Your task to perform on an android device: Open Youtube and go to "Your channel" Image 0: 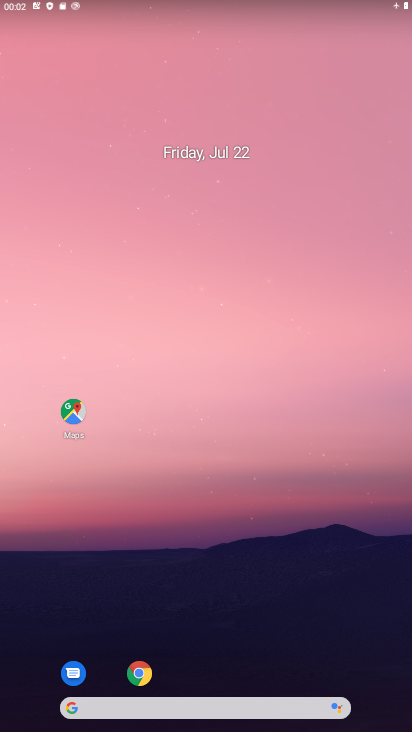
Step 0: drag from (187, 659) to (187, 155)
Your task to perform on an android device: Open Youtube and go to "Your channel" Image 1: 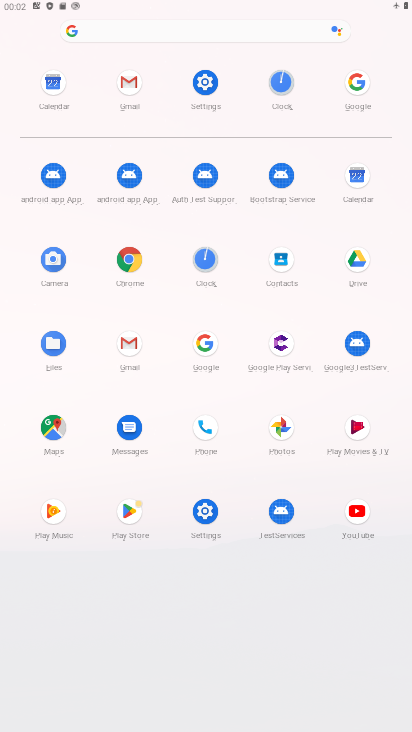
Step 1: click (367, 510)
Your task to perform on an android device: Open Youtube and go to "Your channel" Image 2: 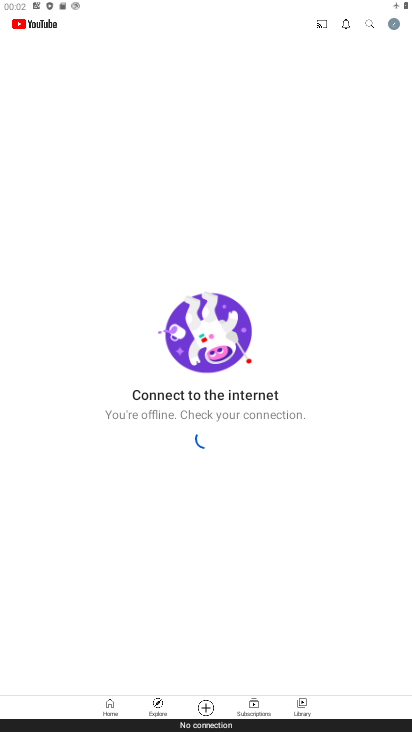
Step 2: click (393, 28)
Your task to perform on an android device: Open Youtube and go to "Your channel" Image 3: 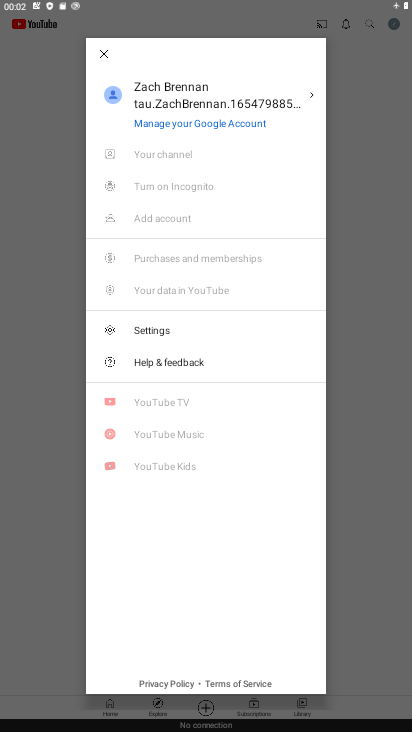
Step 3: click (384, 58)
Your task to perform on an android device: Open Youtube and go to "Your channel" Image 4: 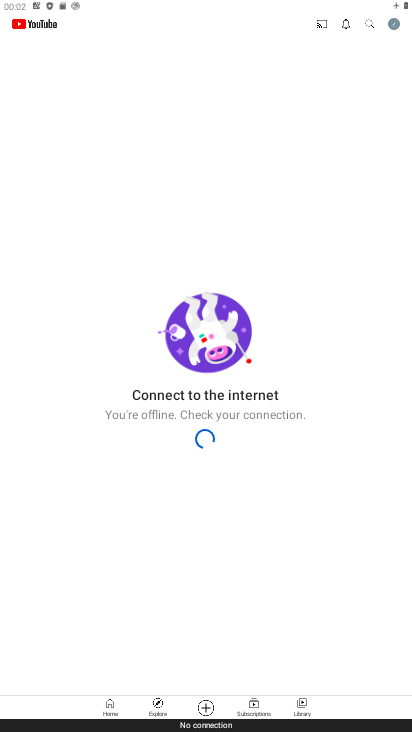
Step 4: click (397, 28)
Your task to perform on an android device: Open Youtube and go to "Your channel" Image 5: 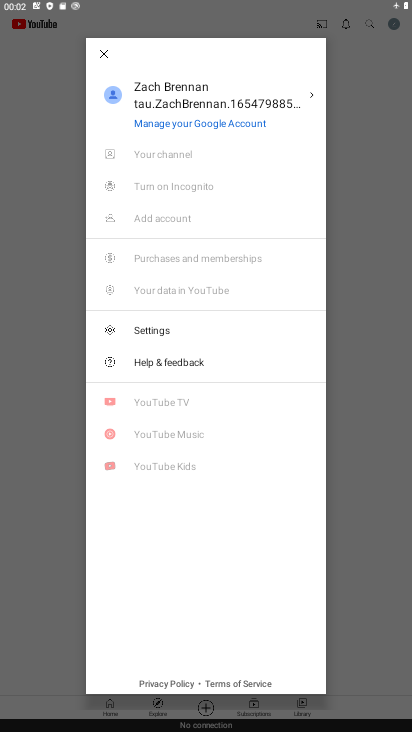
Step 5: task complete